Your task to perform on an android device: change keyboard looks Image 0: 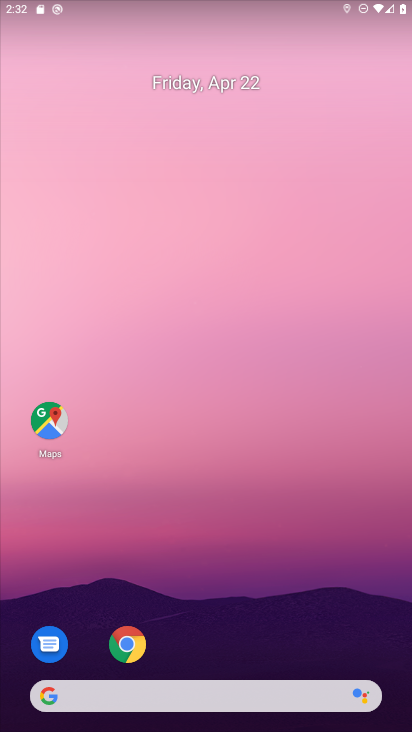
Step 0: drag from (254, 617) to (269, 189)
Your task to perform on an android device: change keyboard looks Image 1: 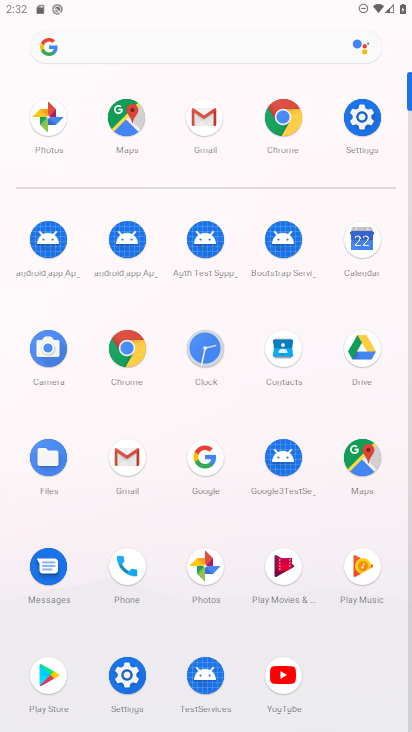
Step 1: click (360, 123)
Your task to perform on an android device: change keyboard looks Image 2: 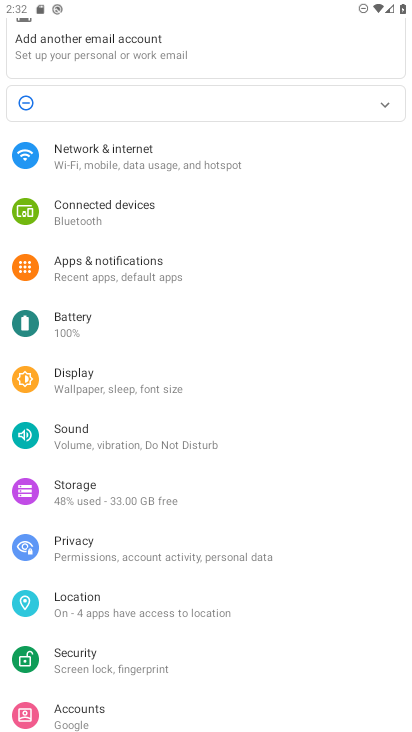
Step 2: drag from (205, 540) to (242, 15)
Your task to perform on an android device: change keyboard looks Image 3: 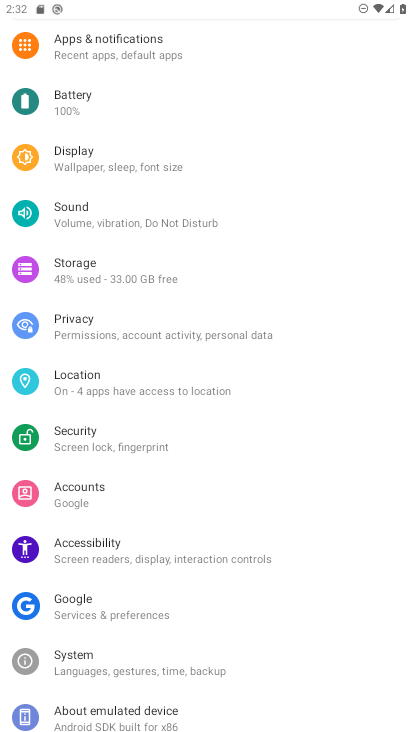
Step 3: click (140, 658)
Your task to perform on an android device: change keyboard looks Image 4: 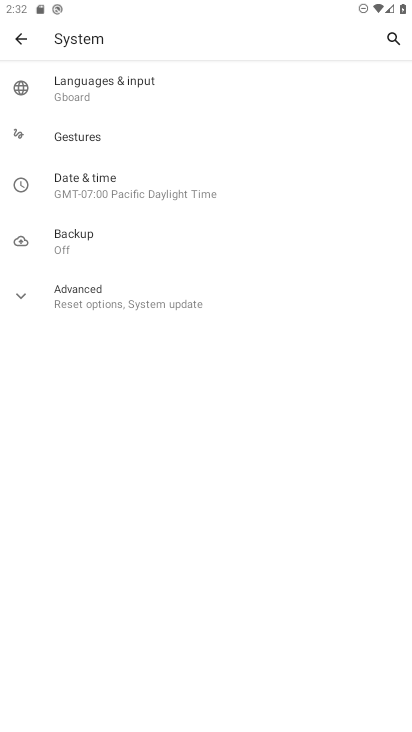
Step 4: click (91, 76)
Your task to perform on an android device: change keyboard looks Image 5: 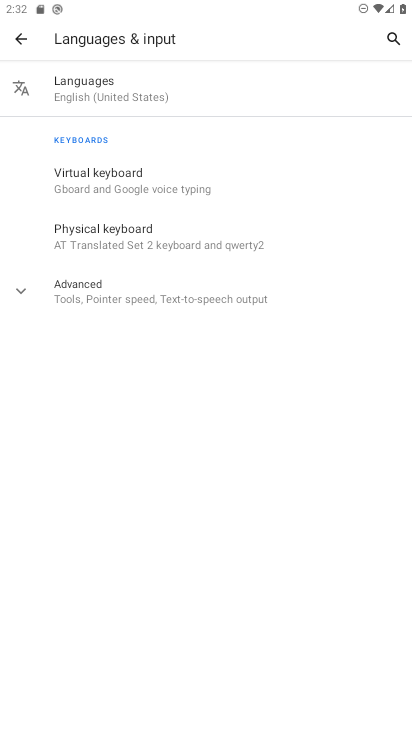
Step 5: click (131, 197)
Your task to perform on an android device: change keyboard looks Image 6: 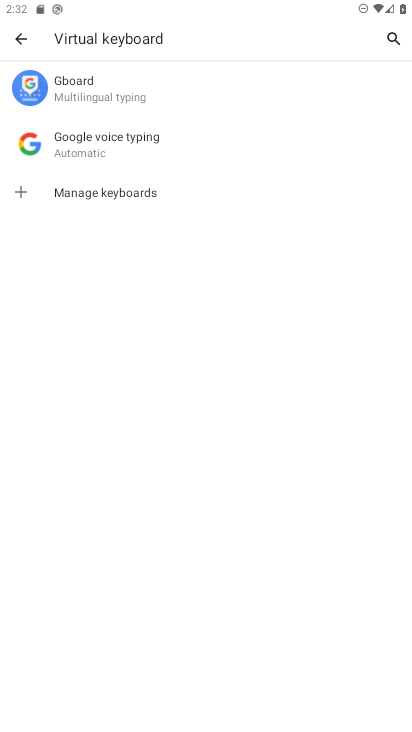
Step 6: click (127, 94)
Your task to perform on an android device: change keyboard looks Image 7: 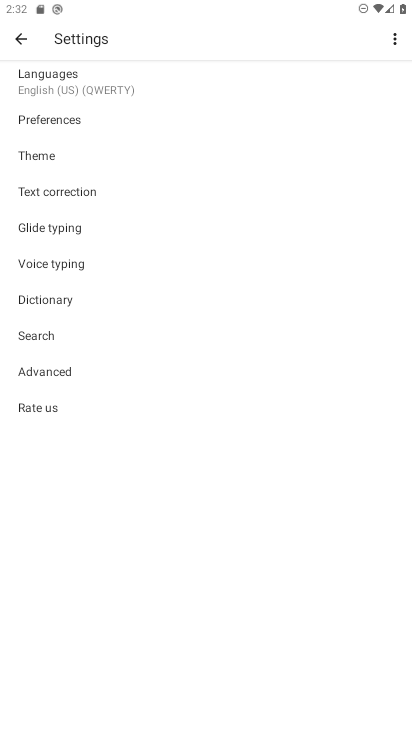
Step 7: click (82, 161)
Your task to perform on an android device: change keyboard looks Image 8: 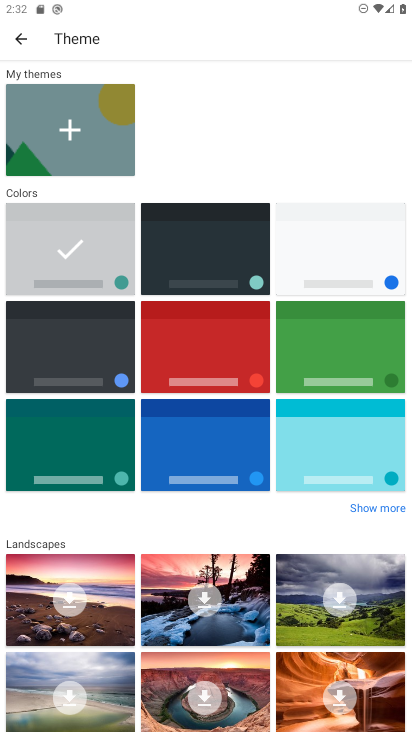
Step 8: click (326, 222)
Your task to perform on an android device: change keyboard looks Image 9: 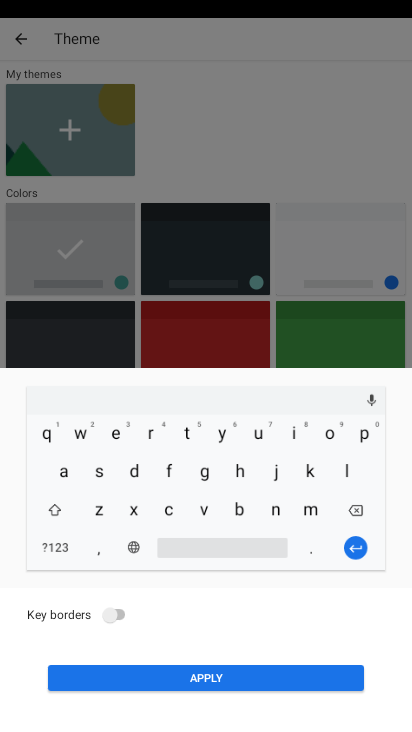
Step 9: click (272, 672)
Your task to perform on an android device: change keyboard looks Image 10: 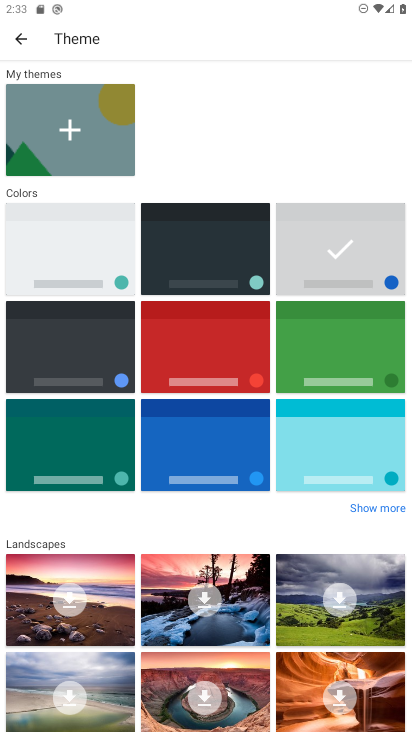
Step 10: task complete